Your task to perform on an android device: Open the phone app and click the voicemail tab. Image 0: 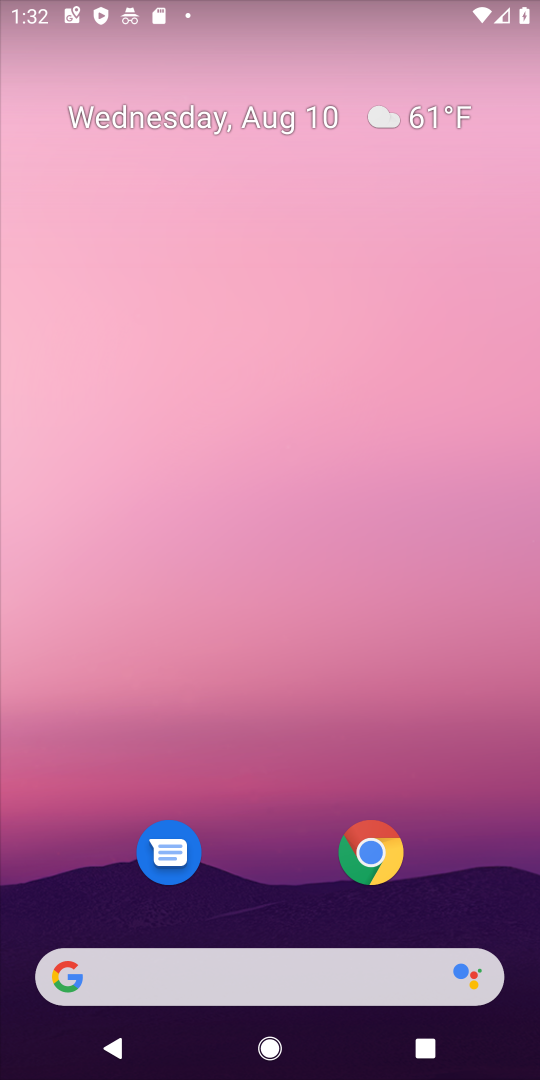
Step 0: drag from (278, 838) to (292, 179)
Your task to perform on an android device: Open the phone app and click the voicemail tab. Image 1: 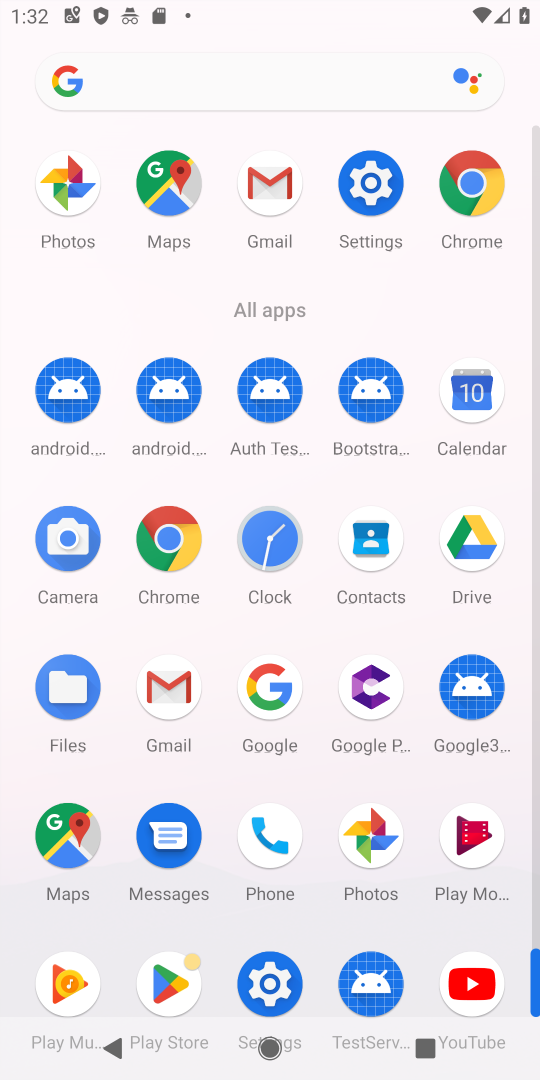
Step 1: click (275, 837)
Your task to perform on an android device: Open the phone app and click the voicemail tab. Image 2: 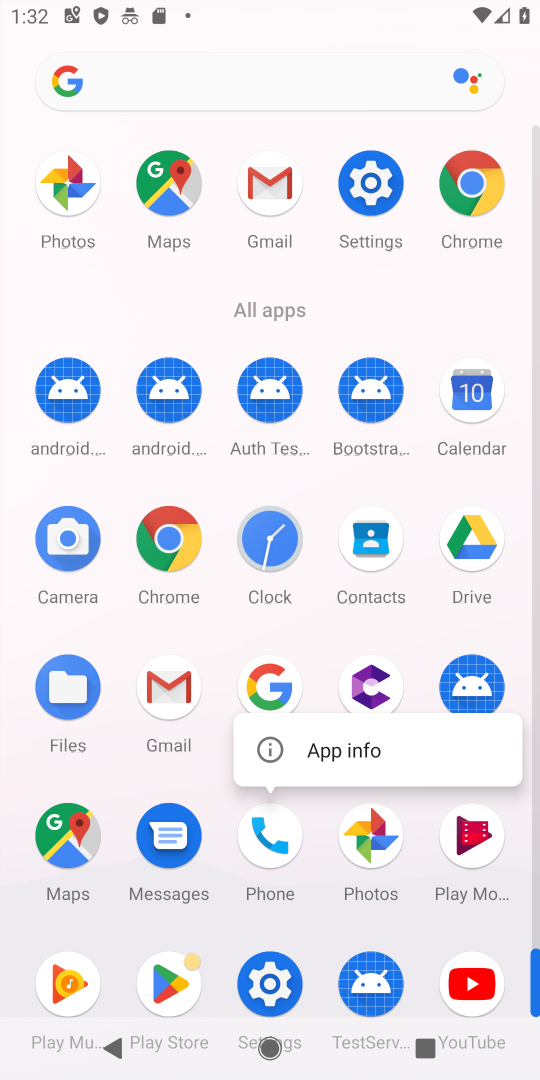
Step 2: click (282, 828)
Your task to perform on an android device: Open the phone app and click the voicemail tab. Image 3: 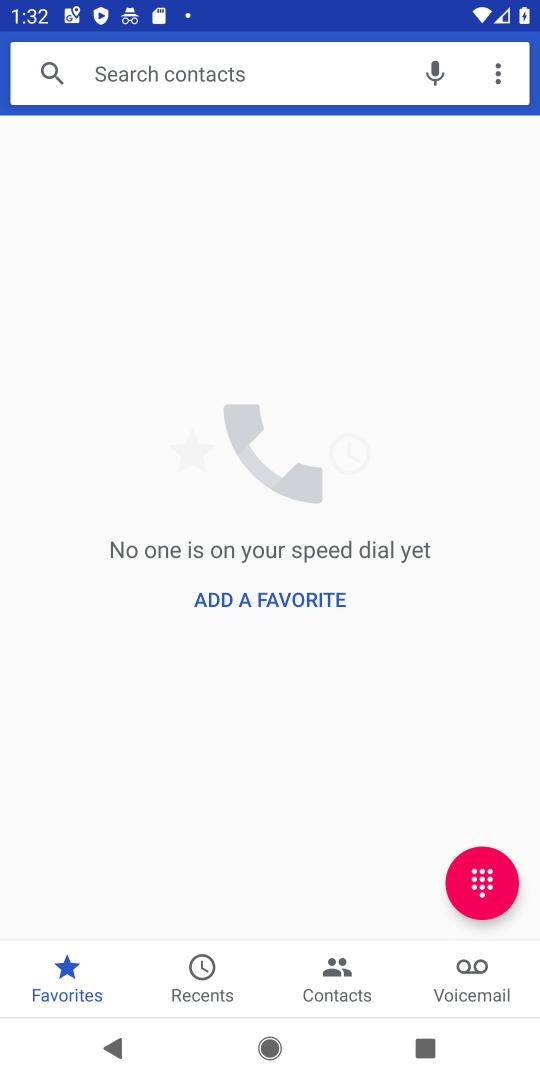
Step 3: click (486, 963)
Your task to perform on an android device: Open the phone app and click the voicemail tab. Image 4: 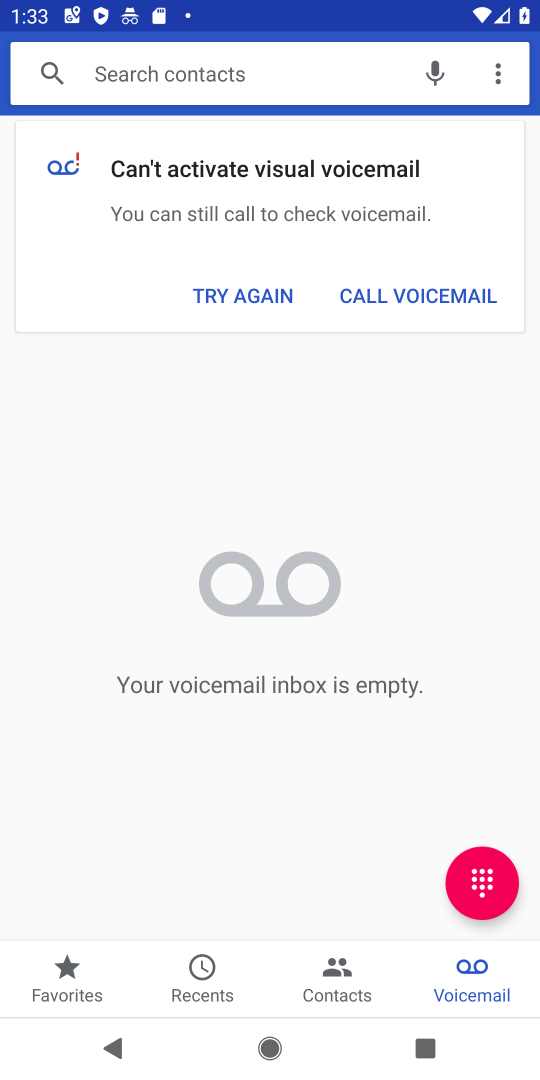
Step 4: task complete